Your task to perform on an android device: Open Google Chrome and click the shortcut for Amazon.com Image 0: 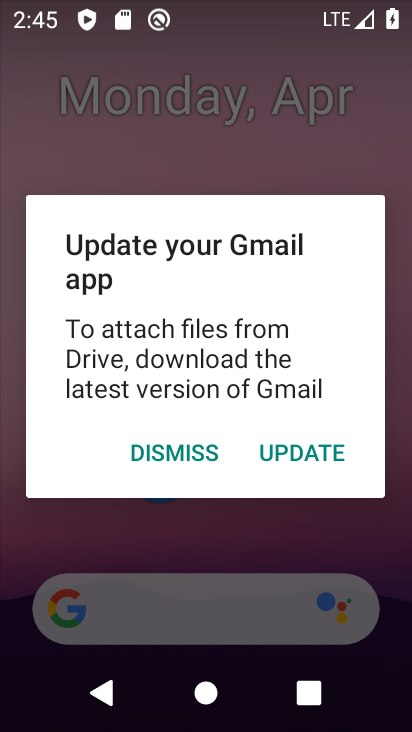
Step 0: press home button
Your task to perform on an android device: Open Google Chrome and click the shortcut for Amazon.com Image 1: 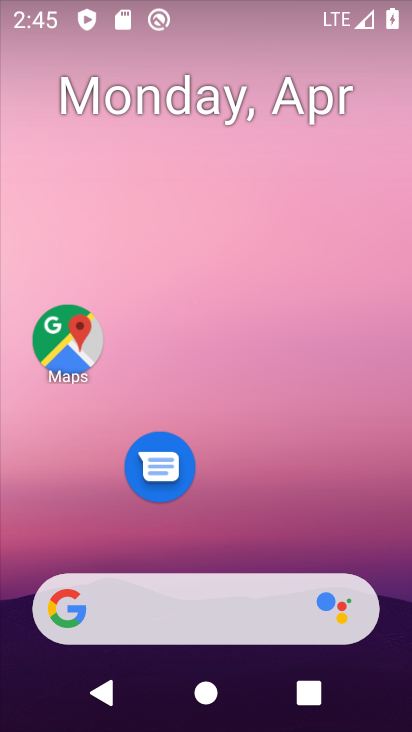
Step 1: drag from (258, 463) to (284, 22)
Your task to perform on an android device: Open Google Chrome and click the shortcut for Amazon.com Image 2: 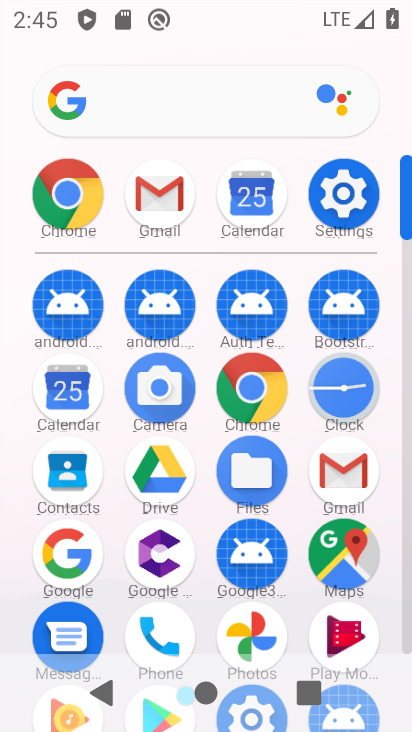
Step 2: click (85, 188)
Your task to perform on an android device: Open Google Chrome and click the shortcut for Amazon.com Image 3: 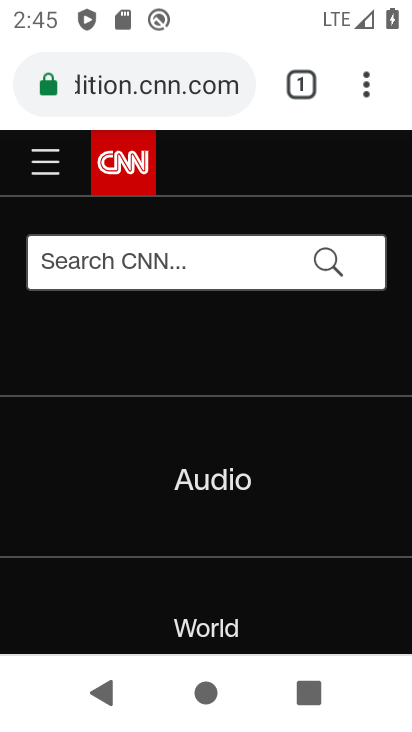
Step 3: click (358, 76)
Your task to perform on an android device: Open Google Chrome and click the shortcut for Amazon.com Image 4: 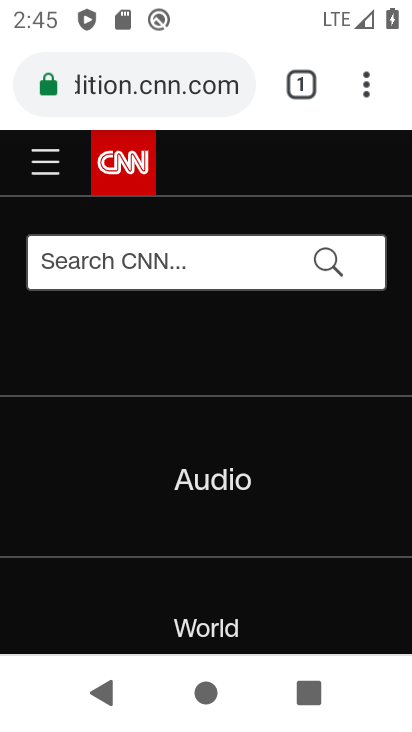
Step 4: click (356, 87)
Your task to perform on an android device: Open Google Chrome and click the shortcut for Amazon.com Image 5: 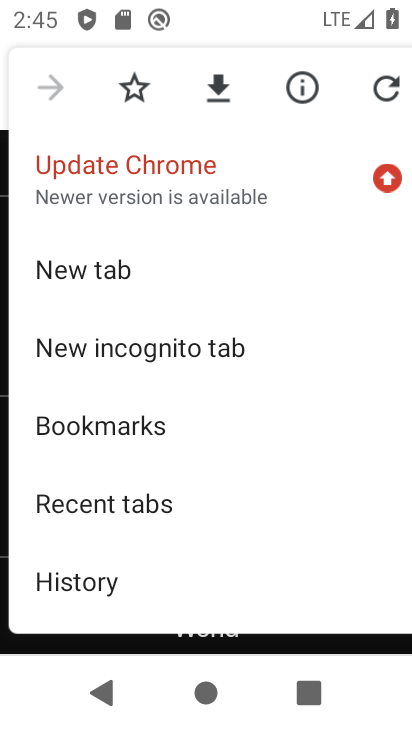
Step 5: click (220, 273)
Your task to perform on an android device: Open Google Chrome and click the shortcut for Amazon.com Image 6: 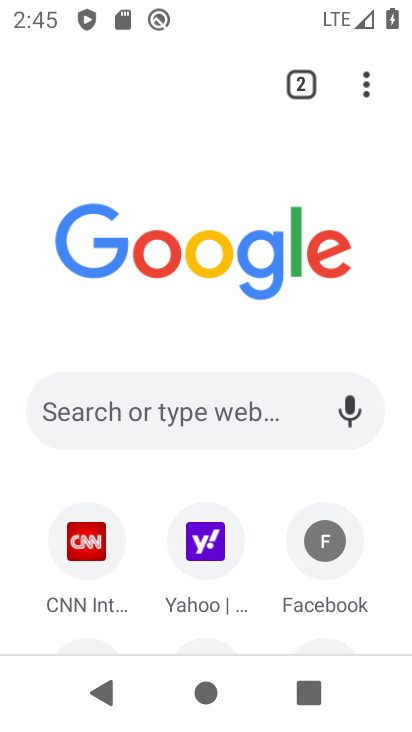
Step 6: drag from (241, 563) to (234, 339)
Your task to perform on an android device: Open Google Chrome and click the shortcut for Amazon.com Image 7: 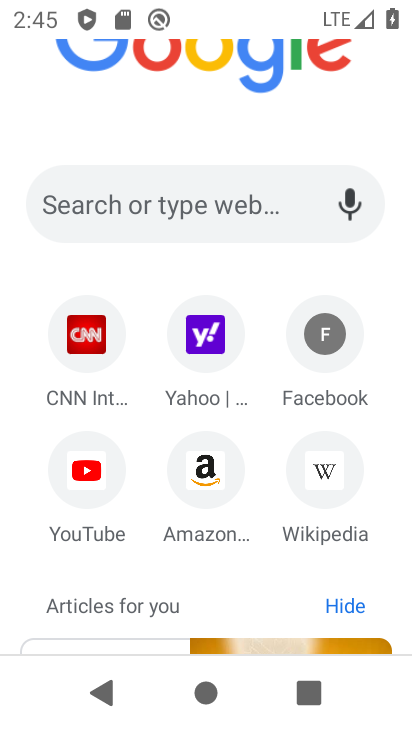
Step 7: click (202, 480)
Your task to perform on an android device: Open Google Chrome and click the shortcut for Amazon.com Image 8: 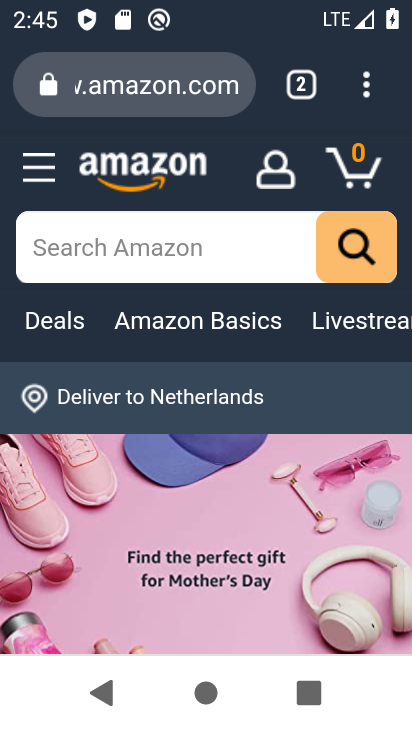
Step 8: task complete